Your task to perform on an android device: Find coffee shops on Maps Image 0: 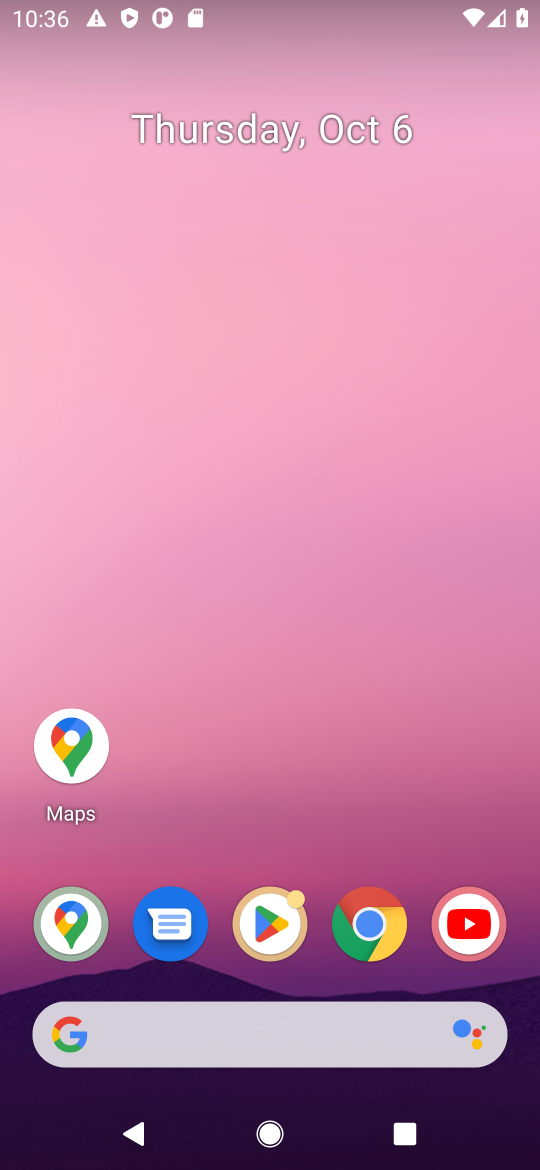
Step 0: click (73, 740)
Your task to perform on an android device: Find coffee shops on Maps Image 1: 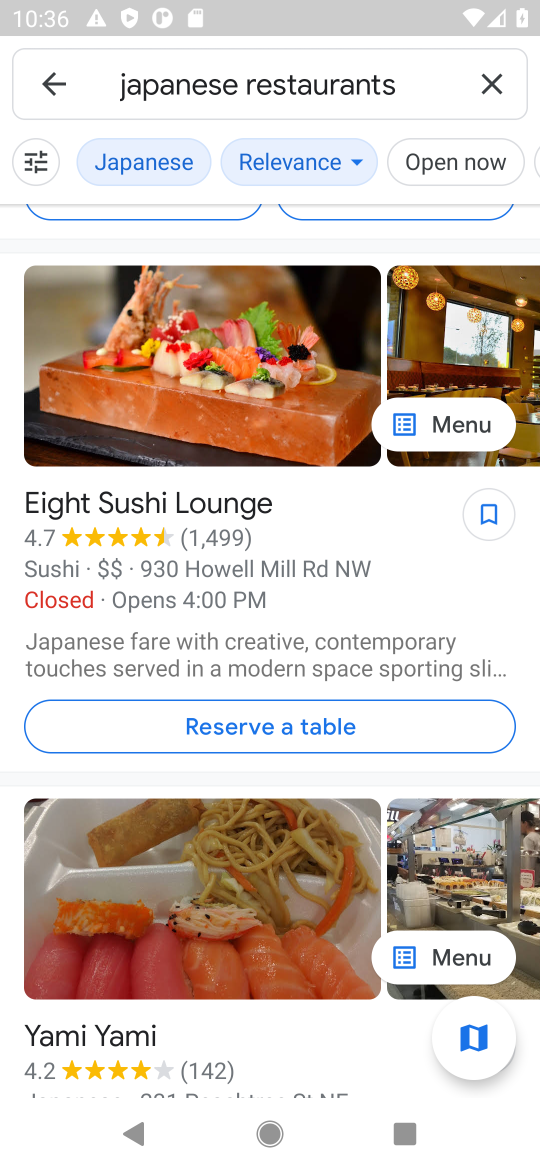
Step 1: click (487, 77)
Your task to perform on an android device: Find coffee shops on Maps Image 2: 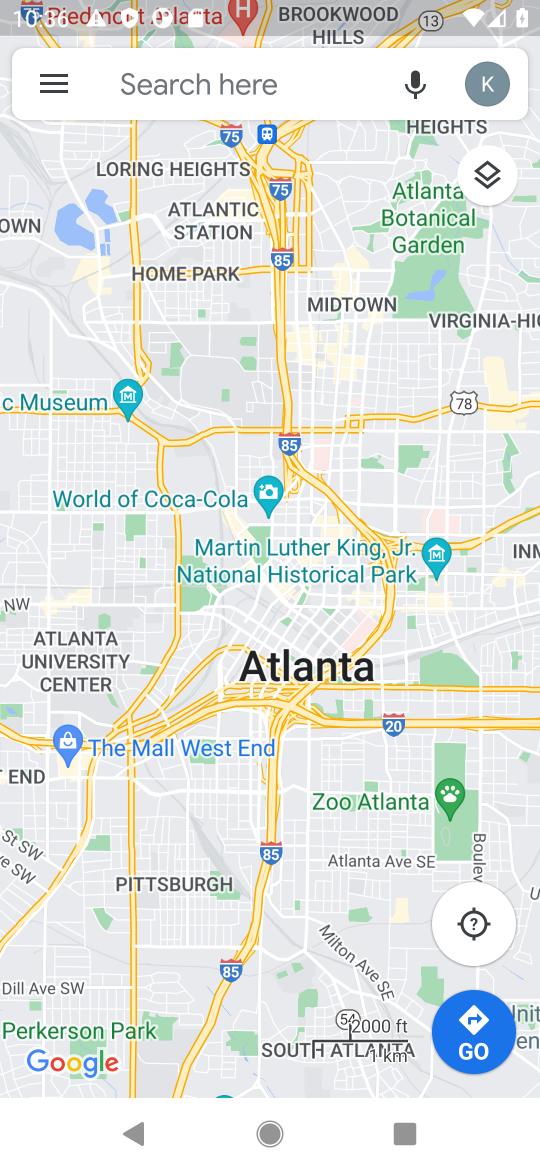
Step 2: click (210, 86)
Your task to perform on an android device: Find coffee shops on Maps Image 3: 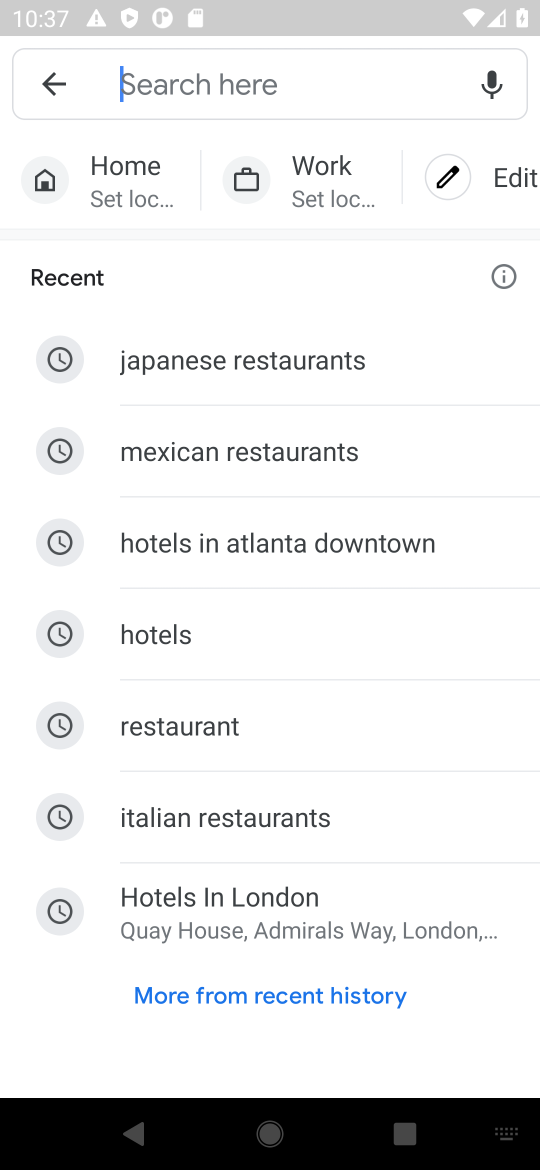
Step 3: type "coffee shops "
Your task to perform on an android device: Find coffee shops on Maps Image 4: 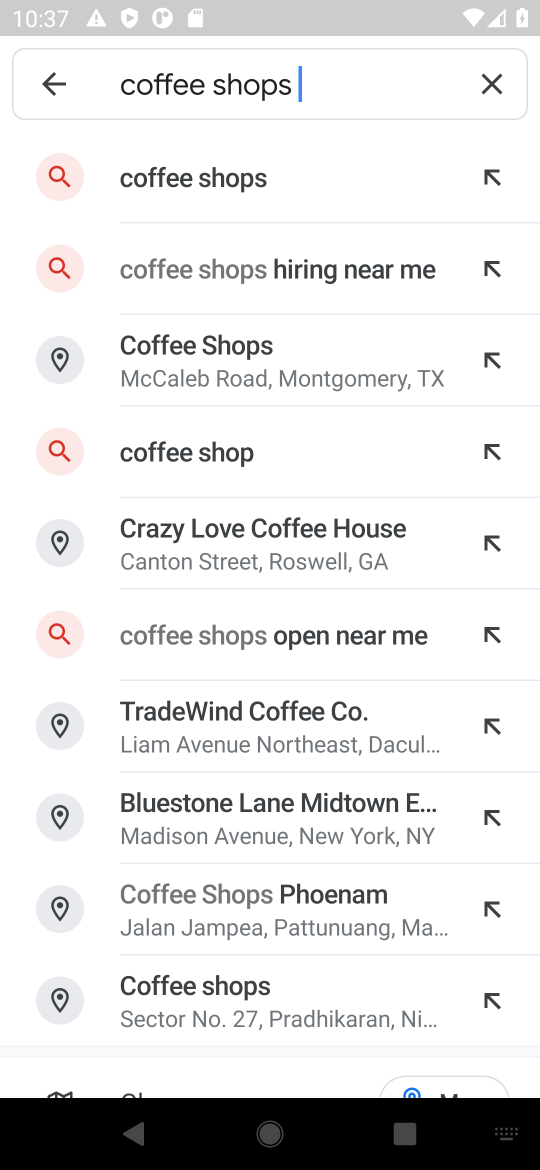
Step 4: click (205, 182)
Your task to perform on an android device: Find coffee shops on Maps Image 5: 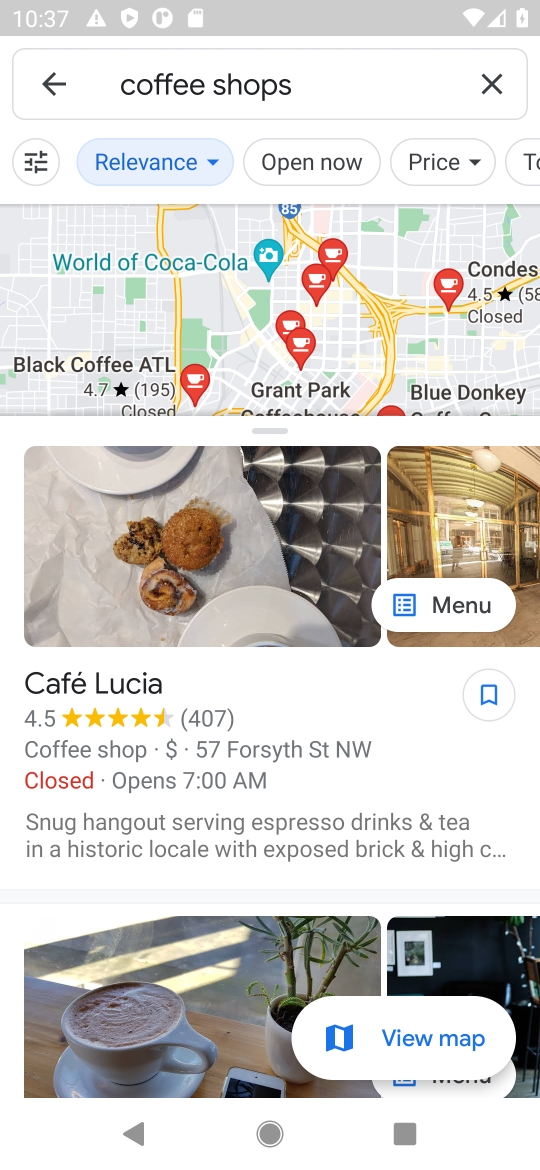
Step 5: task complete